Your task to perform on an android device: open a new tab in the chrome app Image 0: 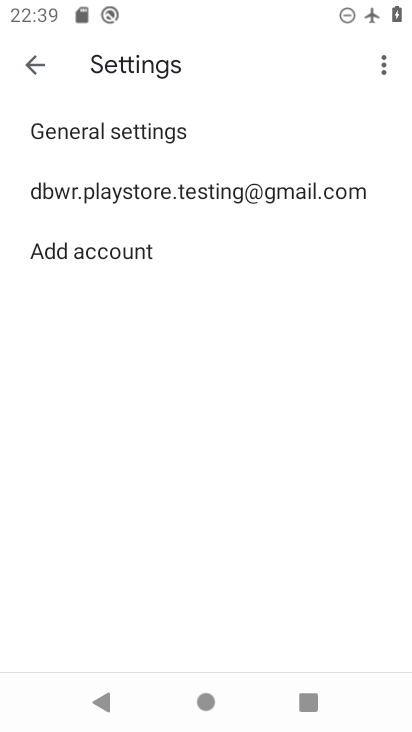
Step 0: press home button
Your task to perform on an android device: open a new tab in the chrome app Image 1: 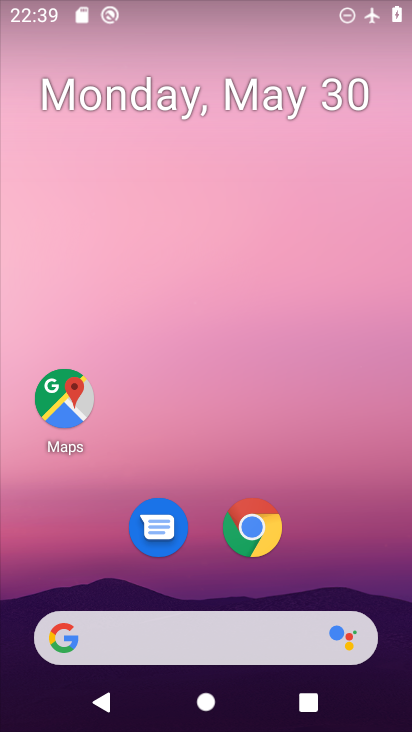
Step 1: click (240, 530)
Your task to perform on an android device: open a new tab in the chrome app Image 2: 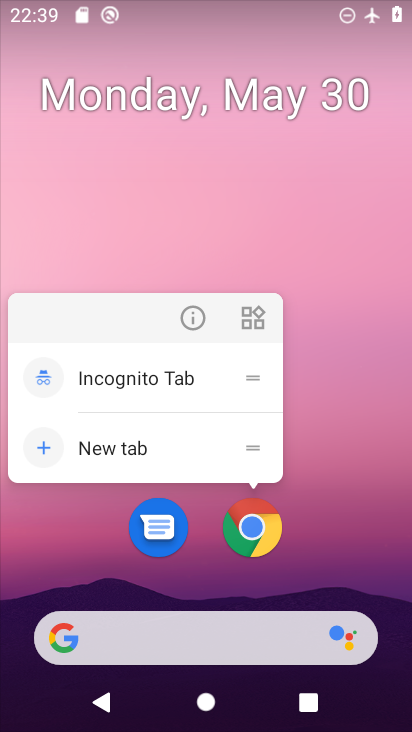
Step 2: click (248, 519)
Your task to perform on an android device: open a new tab in the chrome app Image 3: 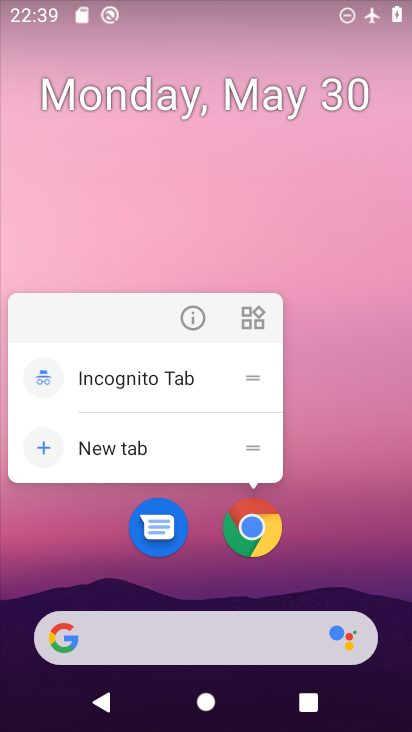
Step 3: click (248, 519)
Your task to perform on an android device: open a new tab in the chrome app Image 4: 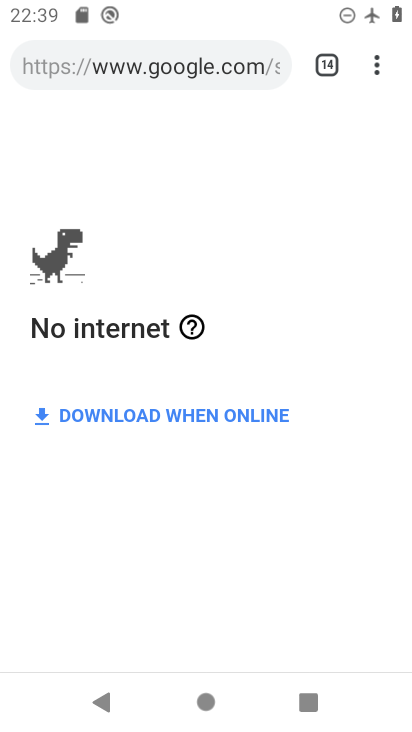
Step 4: click (368, 66)
Your task to perform on an android device: open a new tab in the chrome app Image 5: 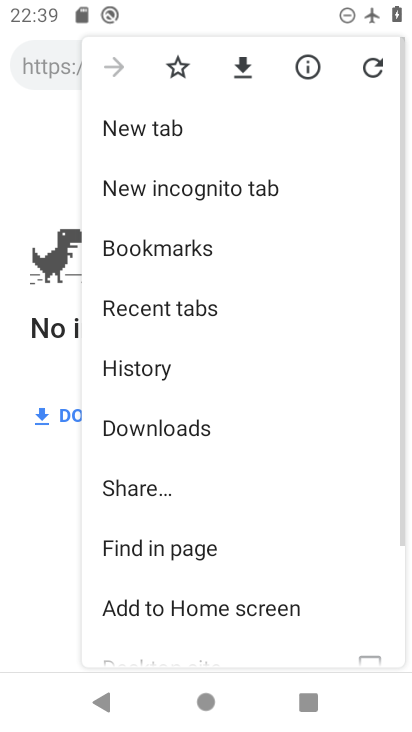
Step 5: click (158, 123)
Your task to perform on an android device: open a new tab in the chrome app Image 6: 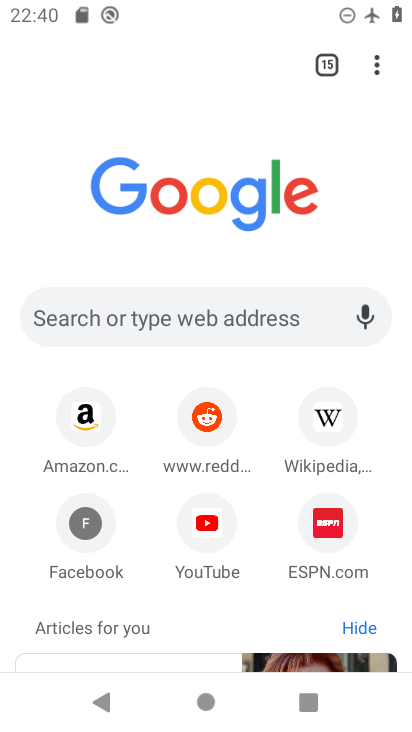
Step 6: task complete